Your task to perform on an android device: Open display settings Image 0: 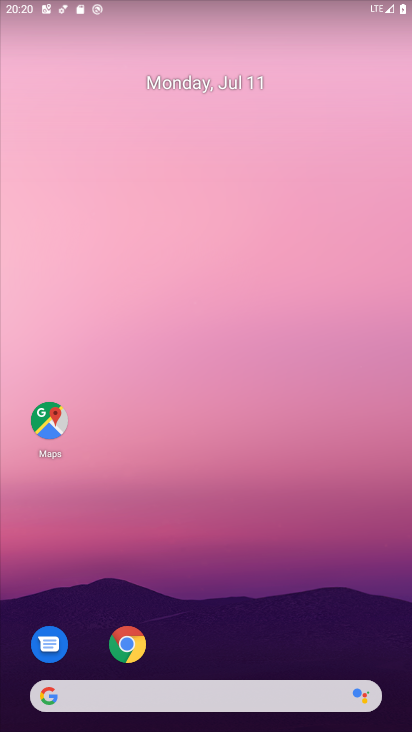
Step 0: drag from (299, 658) to (269, 70)
Your task to perform on an android device: Open display settings Image 1: 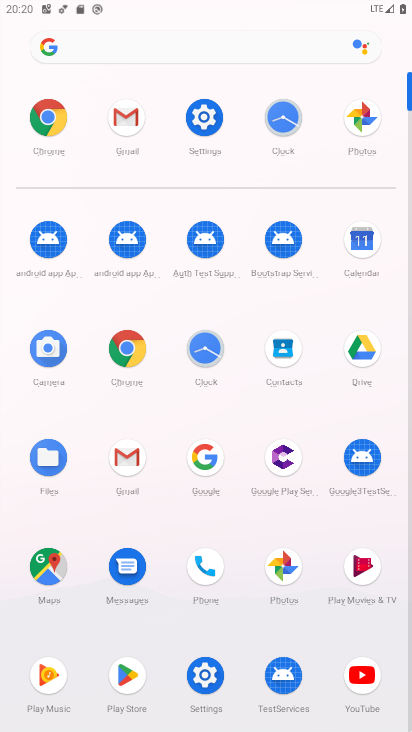
Step 1: click (205, 112)
Your task to perform on an android device: Open display settings Image 2: 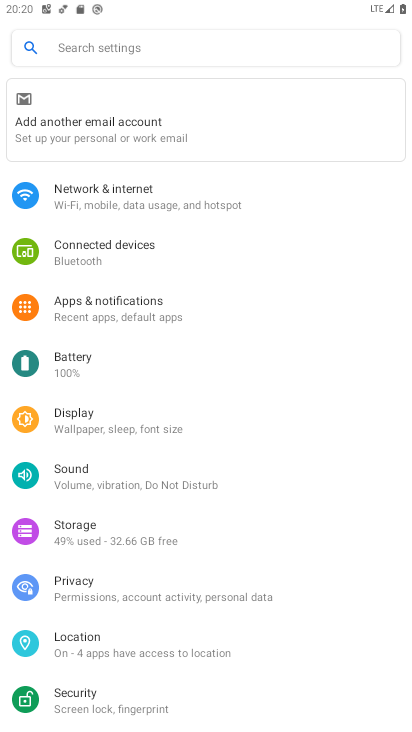
Step 2: click (85, 420)
Your task to perform on an android device: Open display settings Image 3: 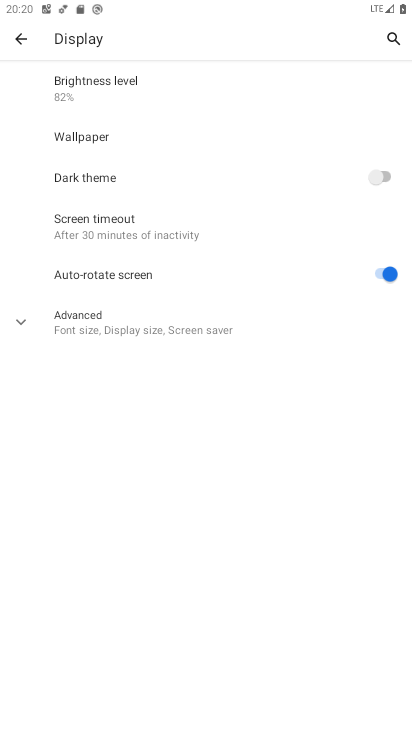
Step 3: task complete